Your task to perform on an android device: open wifi settings Image 0: 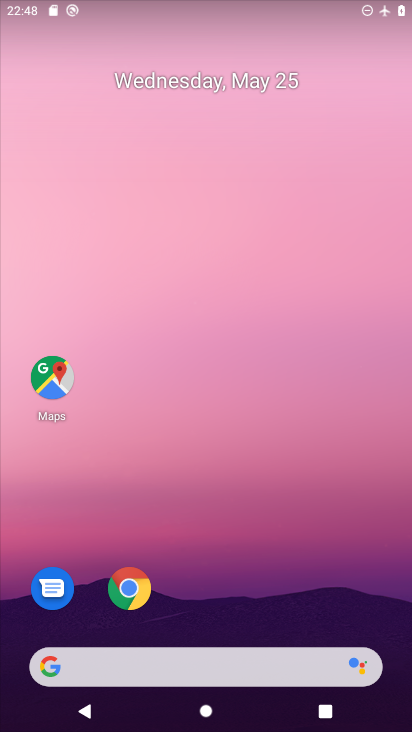
Step 0: drag from (236, 559) to (246, 6)
Your task to perform on an android device: open wifi settings Image 1: 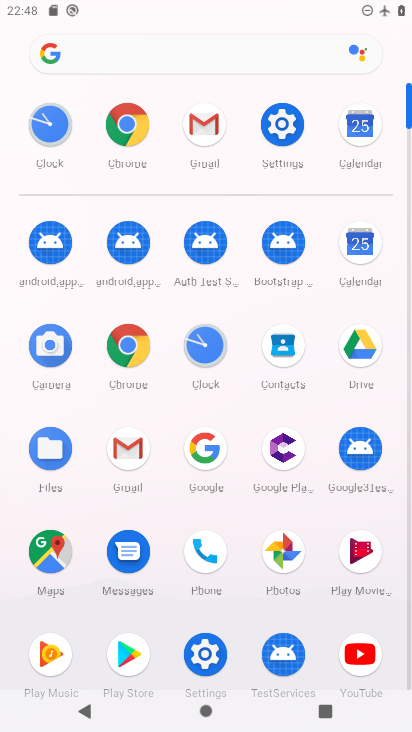
Step 1: click (270, 117)
Your task to perform on an android device: open wifi settings Image 2: 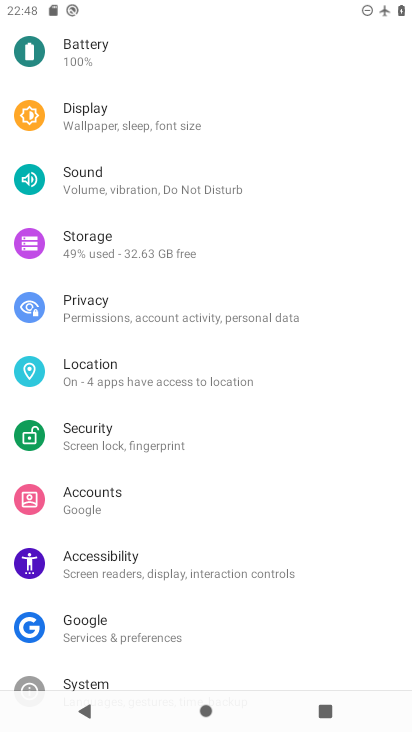
Step 2: drag from (209, 140) to (161, 609)
Your task to perform on an android device: open wifi settings Image 3: 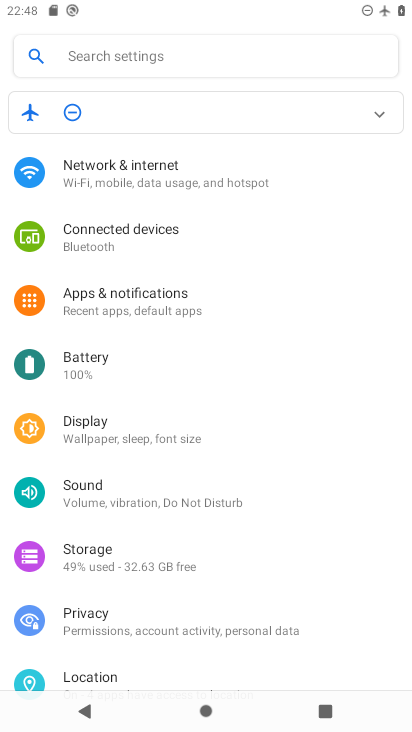
Step 3: click (164, 180)
Your task to perform on an android device: open wifi settings Image 4: 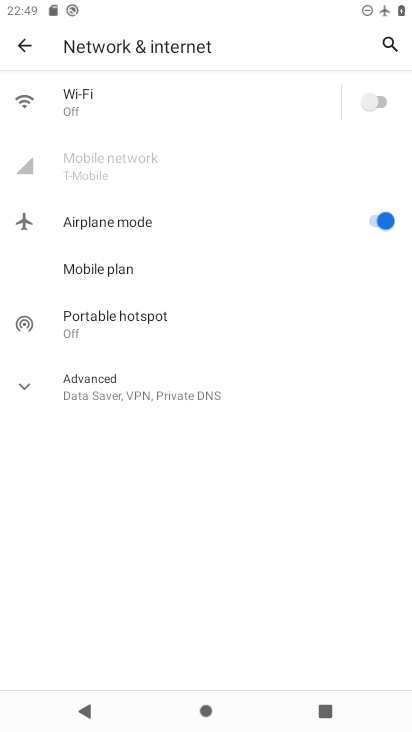
Step 4: click (92, 88)
Your task to perform on an android device: open wifi settings Image 5: 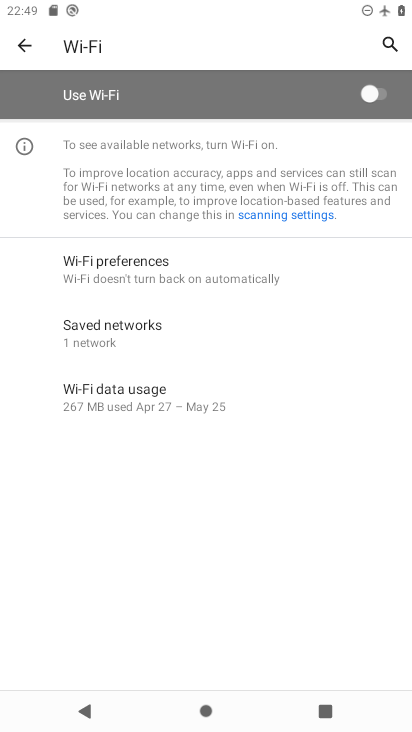
Step 5: click (381, 94)
Your task to perform on an android device: open wifi settings Image 6: 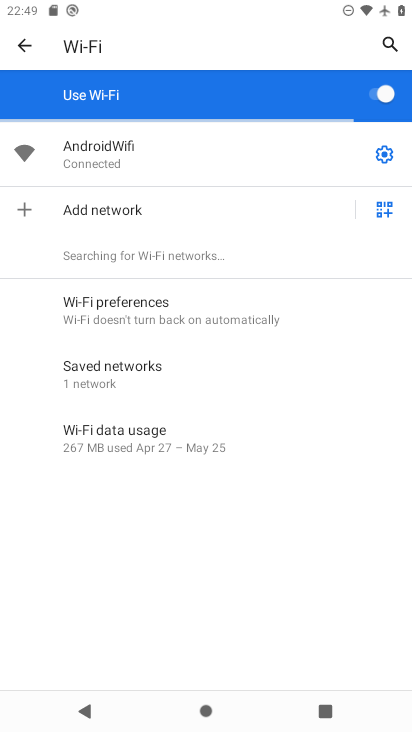
Step 6: click (386, 152)
Your task to perform on an android device: open wifi settings Image 7: 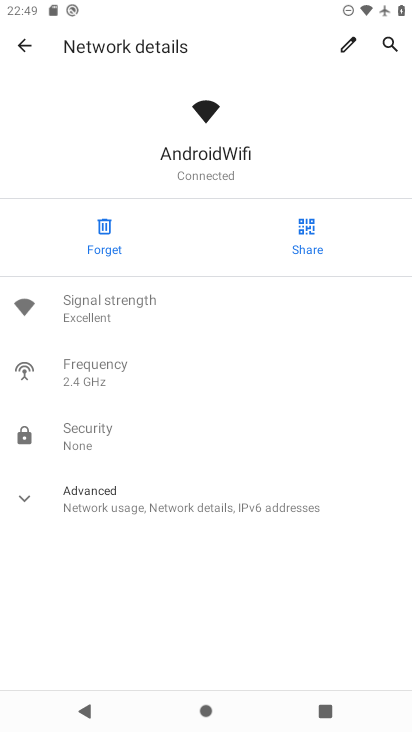
Step 7: task complete